Your task to perform on an android device: Play the last video I watched on Youtube Image 0: 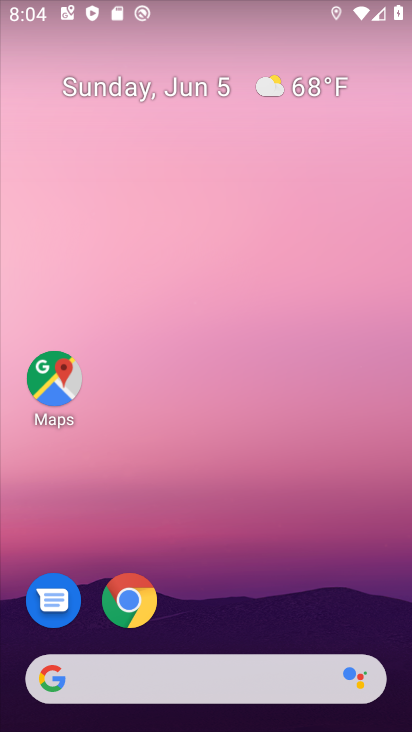
Step 0: drag from (213, 583) to (202, 50)
Your task to perform on an android device: Play the last video I watched on Youtube Image 1: 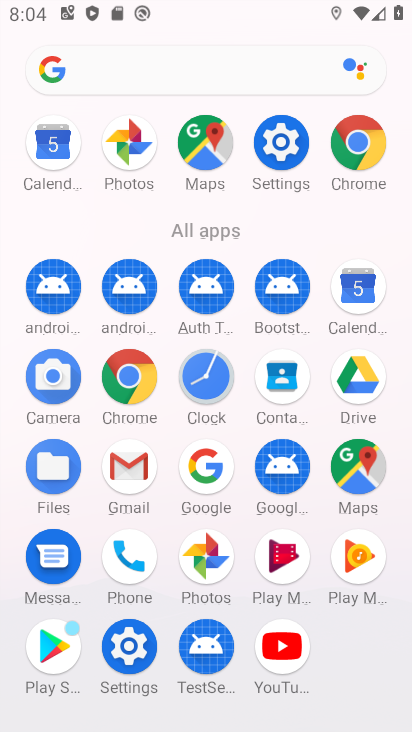
Step 1: click (283, 653)
Your task to perform on an android device: Play the last video I watched on Youtube Image 2: 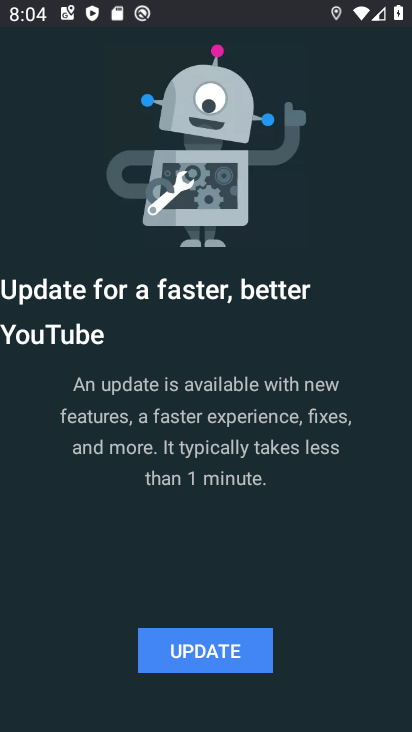
Step 2: click (246, 650)
Your task to perform on an android device: Play the last video I watched on Youtube Image 3: 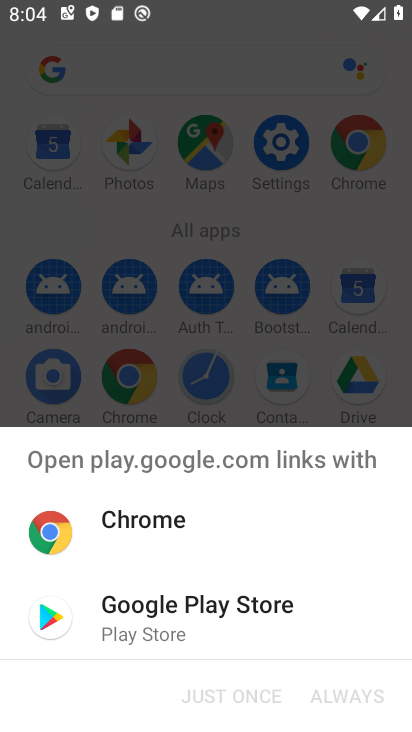
Step 3: click (183, 600)
Your task to perform on an android device: Play the last video I watched on Youtube Image 4: 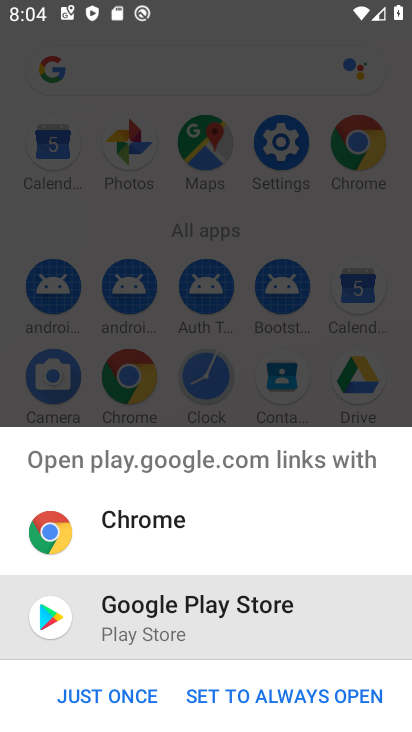
Step 4: click (117, 694)
Your task to perform on an android device: Play the last video I watched on Youtube Image 5: 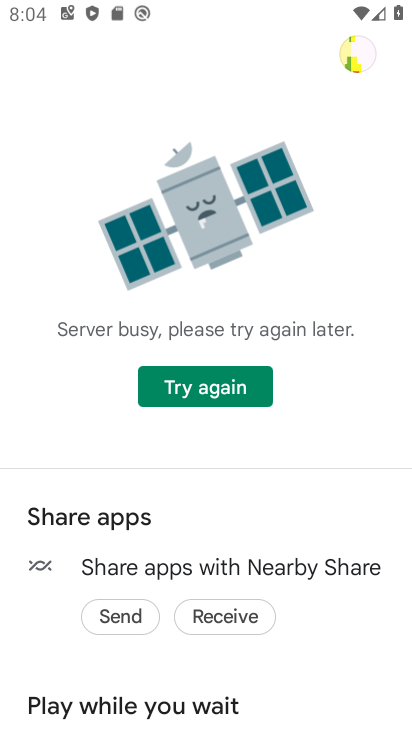
Step 5: click (235, 382)
Your task to perform on an android device: Play the last video I watched on Youtube Image 6: 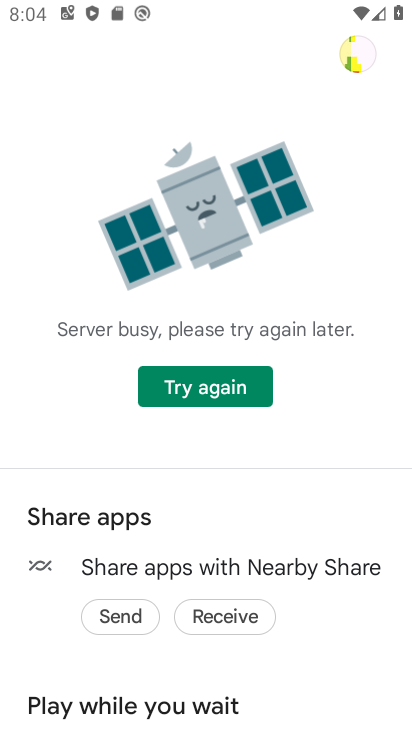
Step 6: click (235, 382)
Your task to perform on an android device: Play the last video I watched on Youtube Image 7: 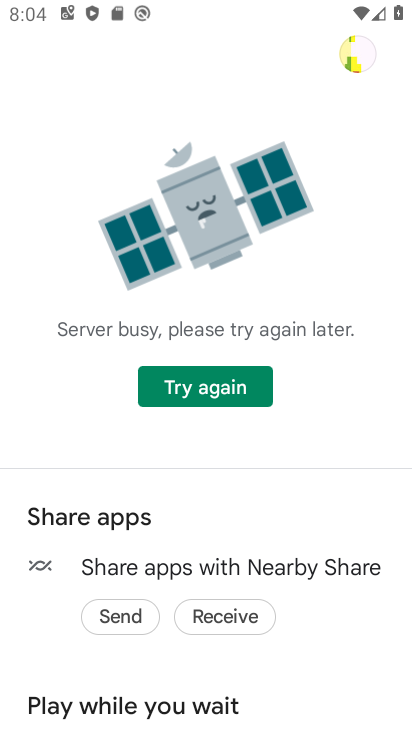
Step 7: click (249, 386)
Your task to perform on an android device: Play the last video I watched on Youtube Image 8: 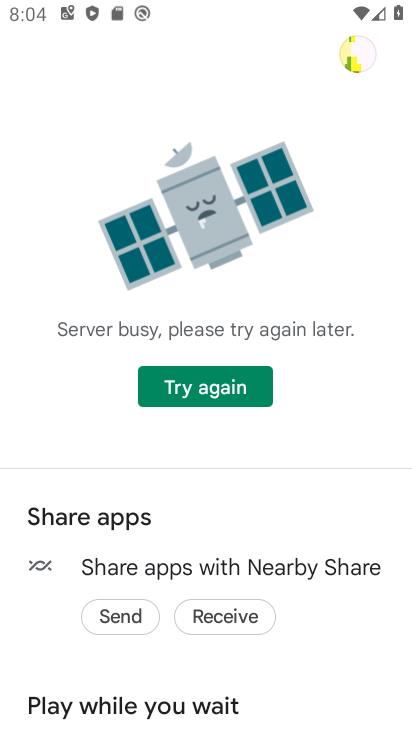
Step 8: click (258, 389)
Your task to perform on an android device: Play the last video I watched on Youtube Image 9: 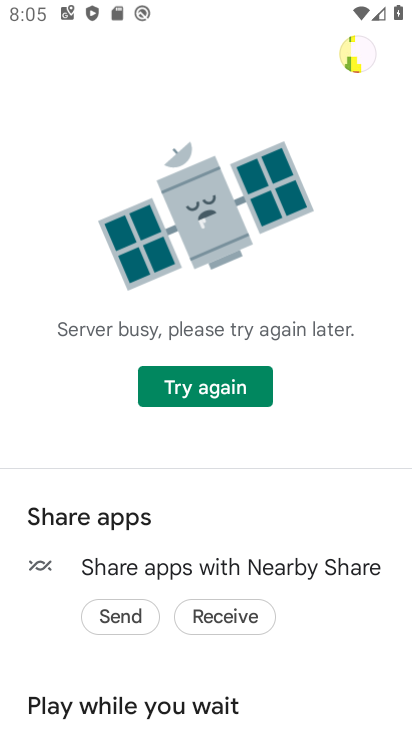
Step 9: task complete